Your task to perform on an android device: Open network settings Image 0: 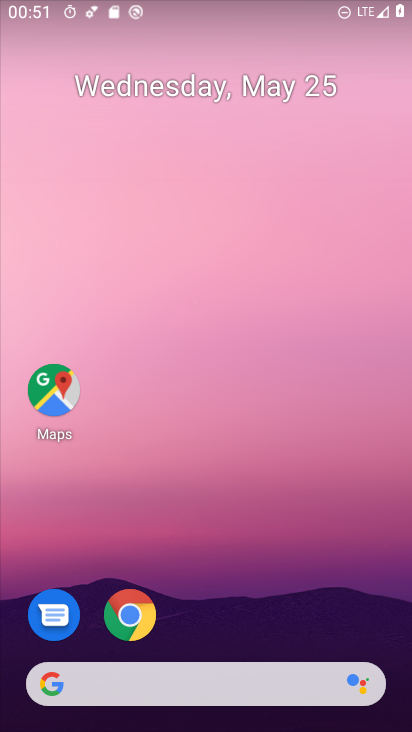
Step 0: press home button
Your task to perform on an android device: Open network settings Image 1: 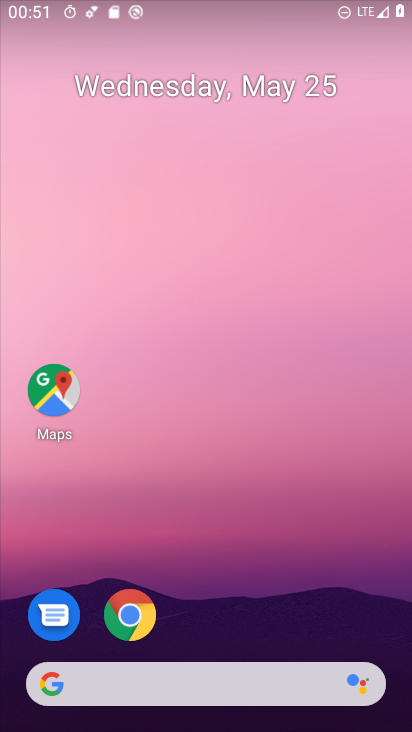
Step 1: drag from (226, 696) to (352, 193)
Your task to perform on an android device: Open network settings Image 2: 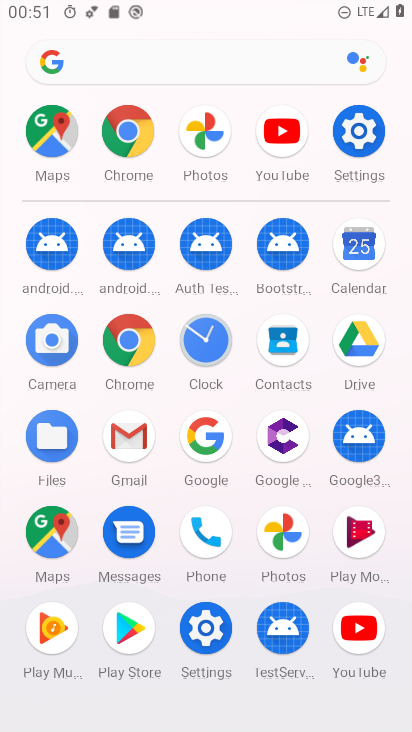
Step 2: click (357, 149)
Your task to perform on an android device: Open network settings Image 3: 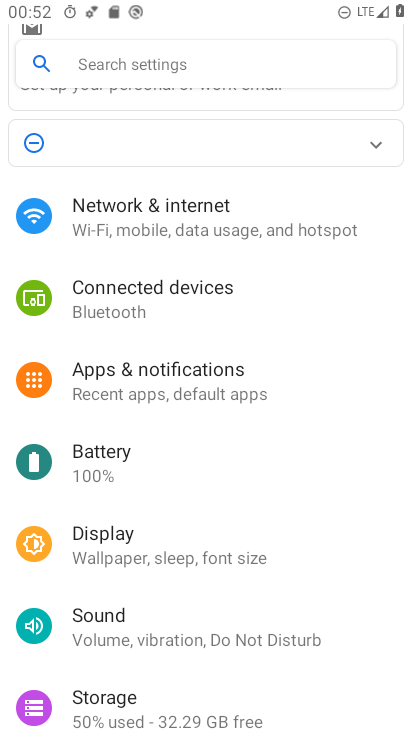
Step 3: click (139, 213)
Your task to perform on an android device: Open network settings Image 4: 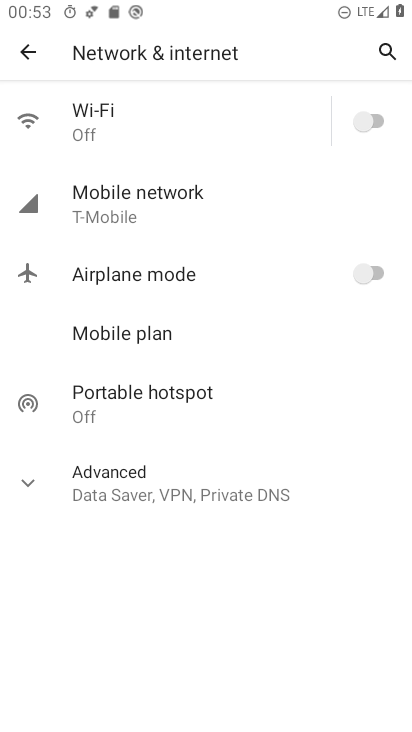
Step 4: task complete